Your task to perform on an android device: find which apps use the phone's location Image 0: 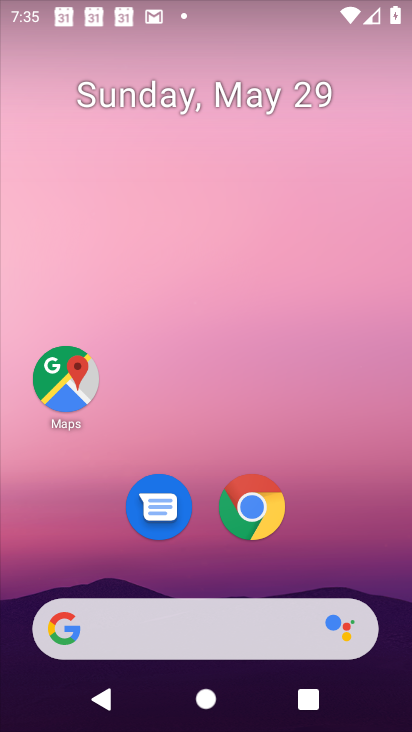
Step 0: drag from (361, 513) to (387, 234)
Your task to perform on an android device: find which apps use the phone's location Image 1: 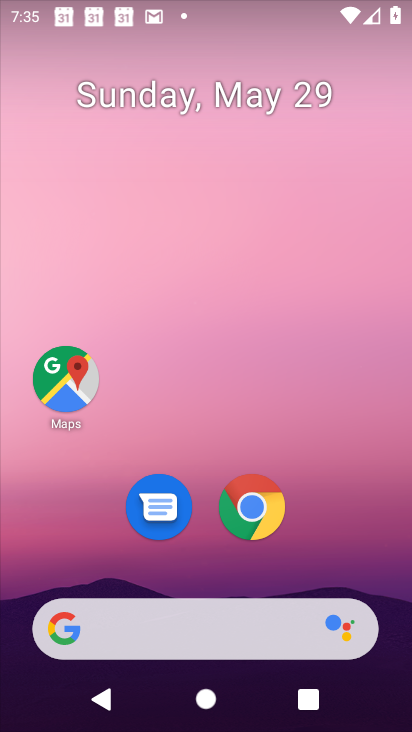
Step 1: drag from (352, 574) to (410, 9)
Your task to perform on an android device: find which apps use the phone's location Image 2: 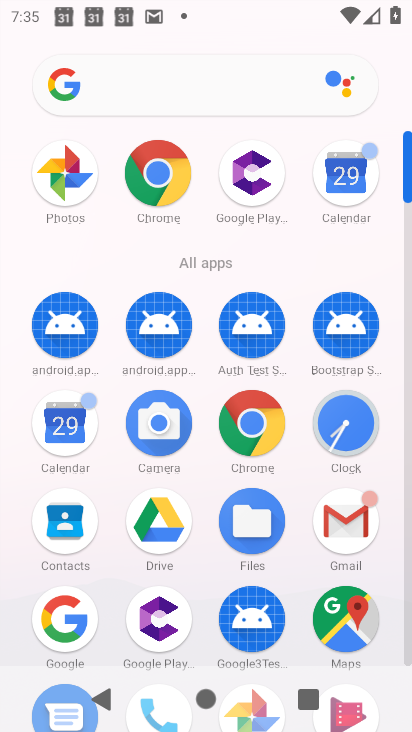
Step 2: click (405, 407)
Your task to perform on an android device: find which apps use the phone's location Image 3: 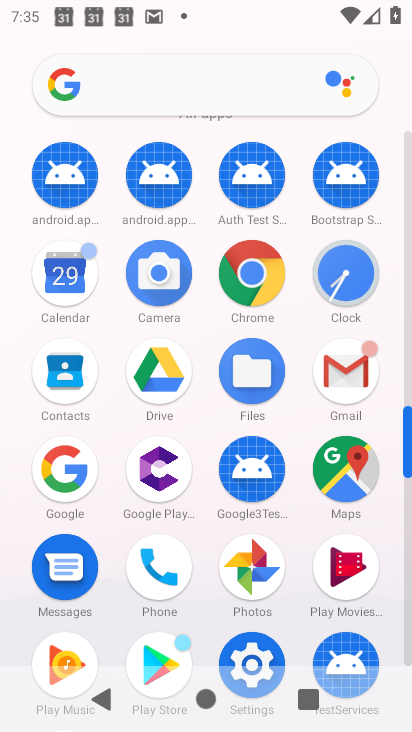
Step 3: click (237, 654)
Your task to perform on an android device: find which apps use the phone's location Image 4: 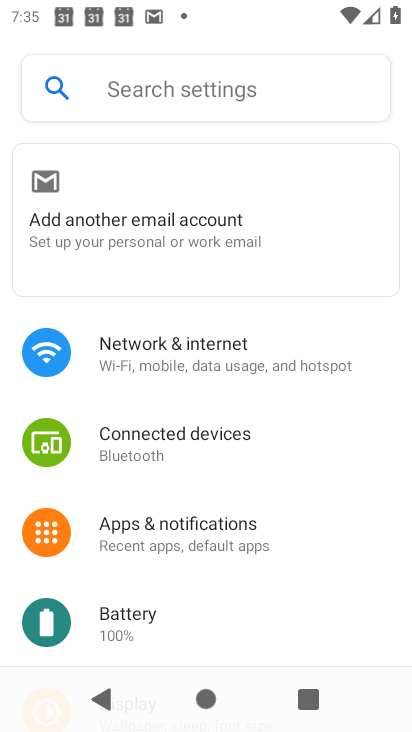
Step 4: click (184, 343)
Your task to perform on an android device: find which apps use the phone's location Image 5: 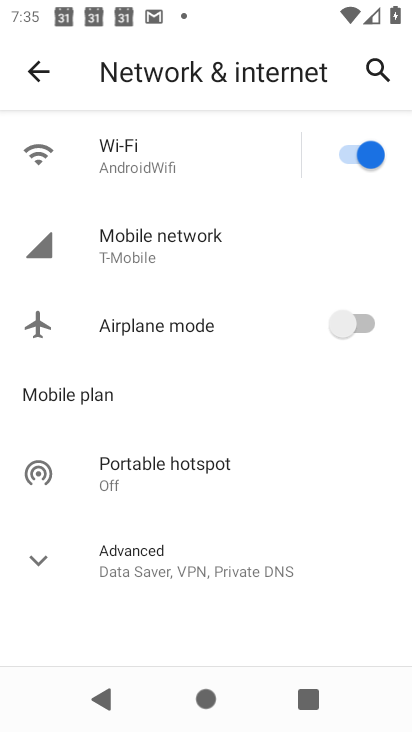
Step 5: click (51, 81)
Your task to perform on an android device: find which apps use the phone's location Image 6: 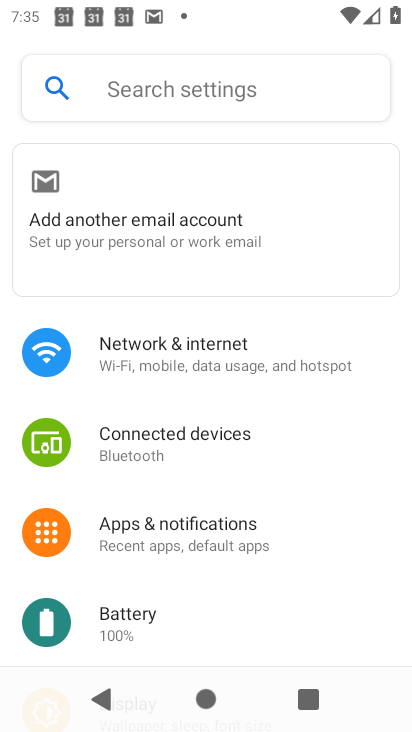
Step 6: drag from (206, 569) to (214, 64)
Your task to perform on an android device: find which apps use the phone's location Image 7: 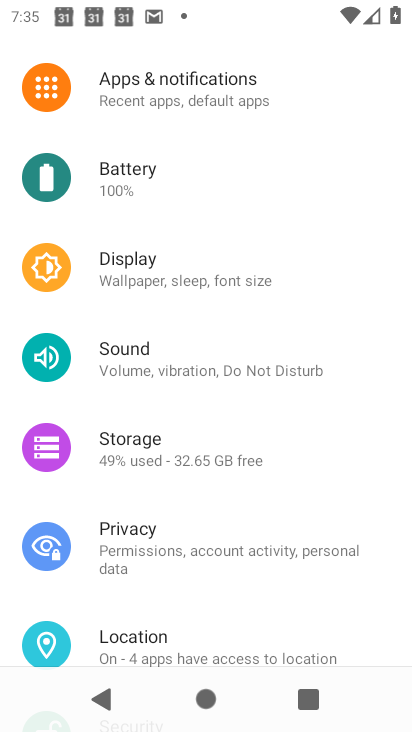
Step 7: click (188, 648)
Your task to perform on an android device: find which apps use the phone's location Image 8: 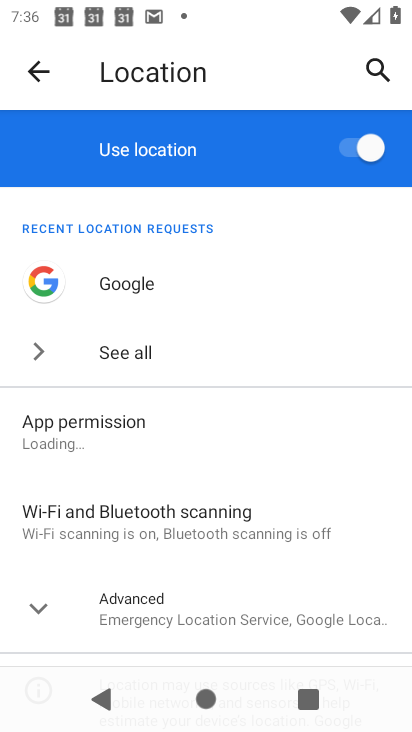
Step 8: click (174, 464)
Your task to perform on an android device: find which apps use the phone's location Image 9: 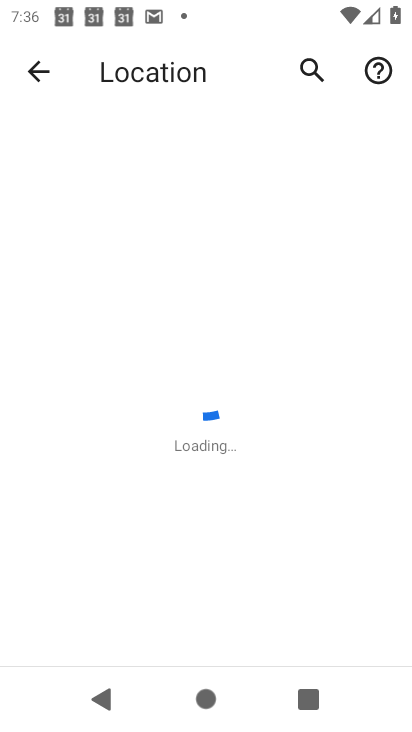
Step 9: task complete